Your task to perform on an android device: turn off location history Image 0: 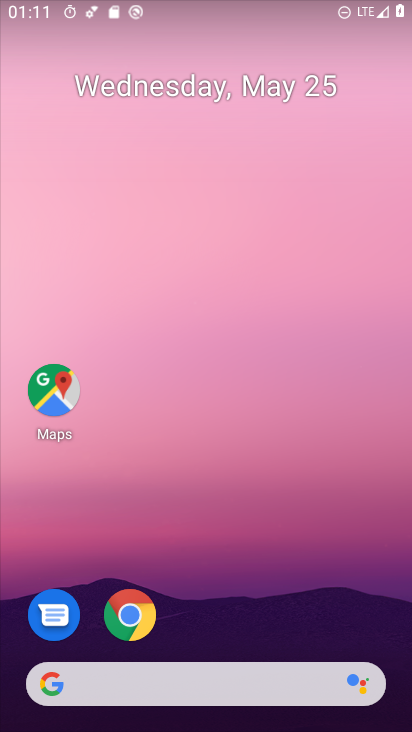
Step 0: press back button
Your task to perform on an android device: turn off location history Image 1: 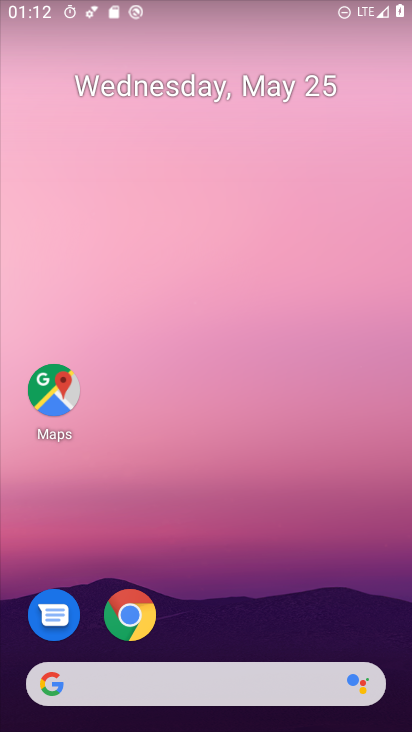
Step 1: drag from (269, 704) to (280, 116)
Your task to perform on an android device: turn off location history Image 2: 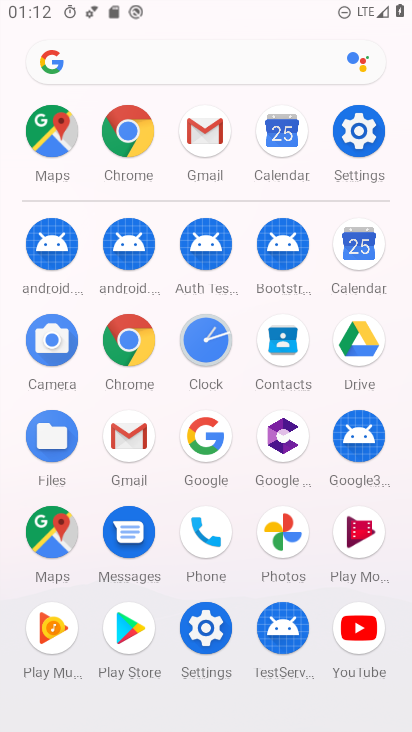
Step 2: click (357, 139)
Your task to perform on an android device: turn off location history Image 3: 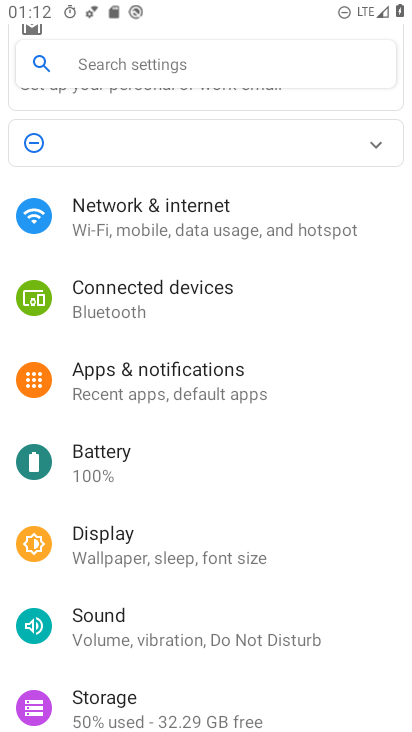
Step 3: click (142, 61)
Your task to perform on an android device: turn off location history Image 4: 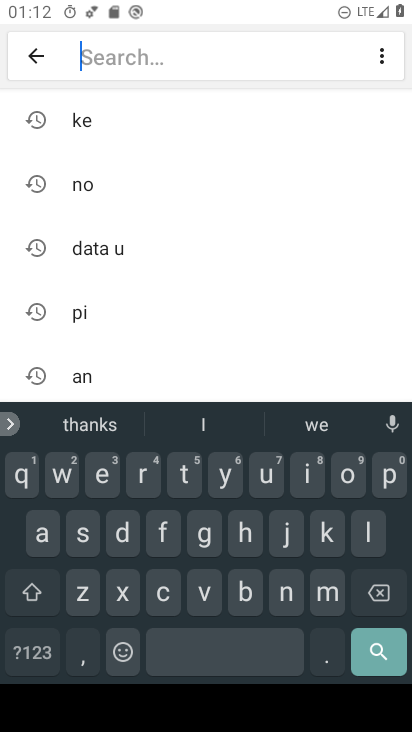
Step 4: click (366, 529)
Your task to perform on an android device: turn off location history Image 5: 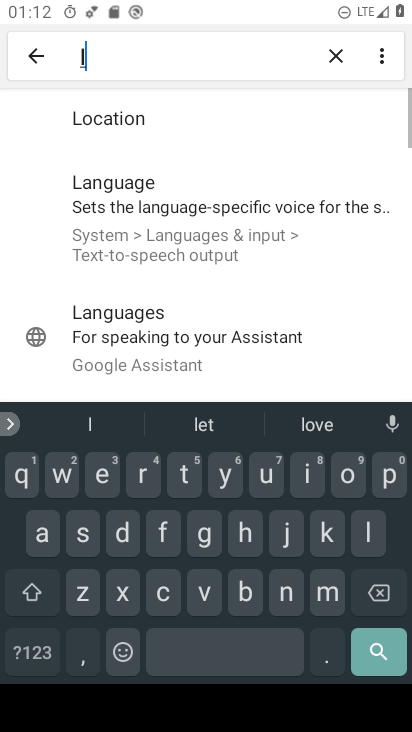
Step 5: click (350, 470)
Your task to perform on an android device: turn off location history Image 6: 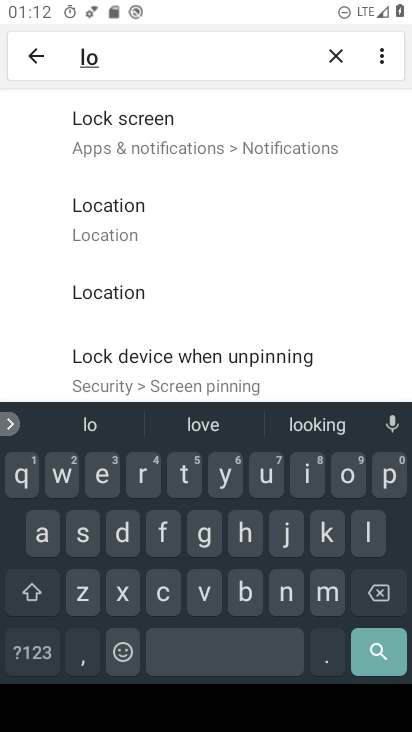
Step 6: click (149, 210)
Your task to perform on an android device: turn off location history Image 7: 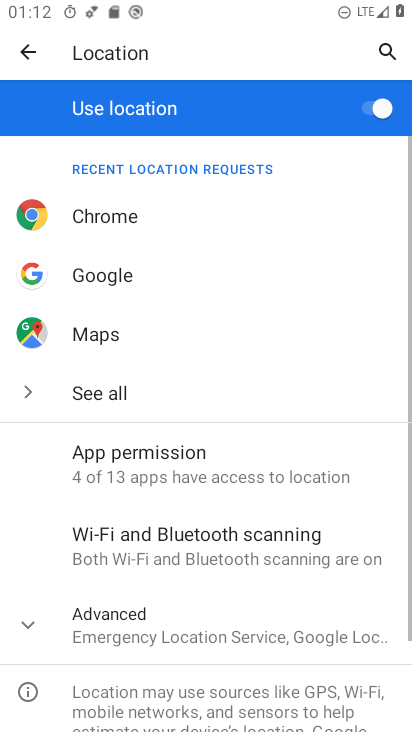
Step 7: click (374, 87)
Your task to perform on an android device: turn off location history Image 8: 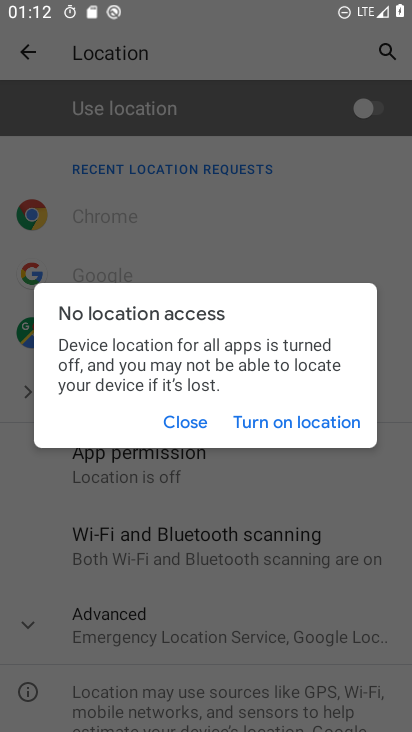
Step 8: task complete